Your task to perform on an android device: toggle javascript in the chrome app Image 0: 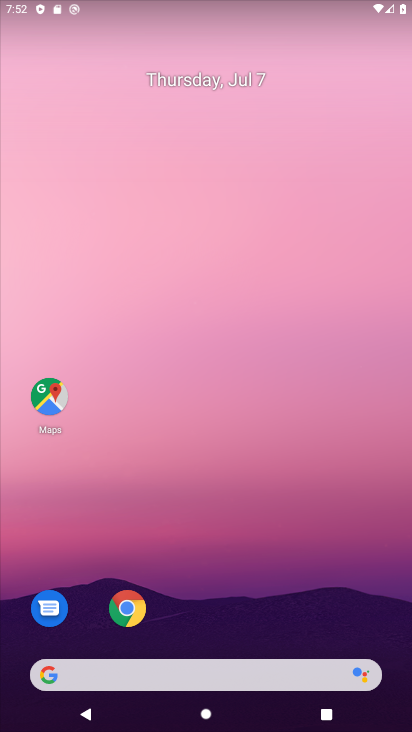
Step 0: click (140, 613)
Your task to perform on an android device: toggle javascript in the chrome app Image 1: 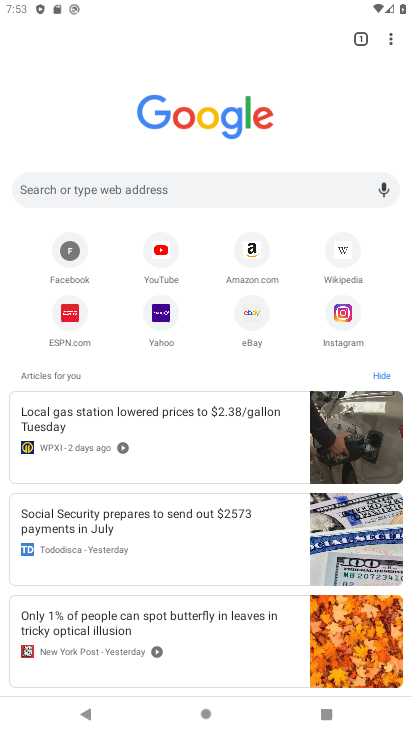
Step 1: click (387, 43)
Your task to perform on an android device: toggle javascript in the chrome app Image 2: 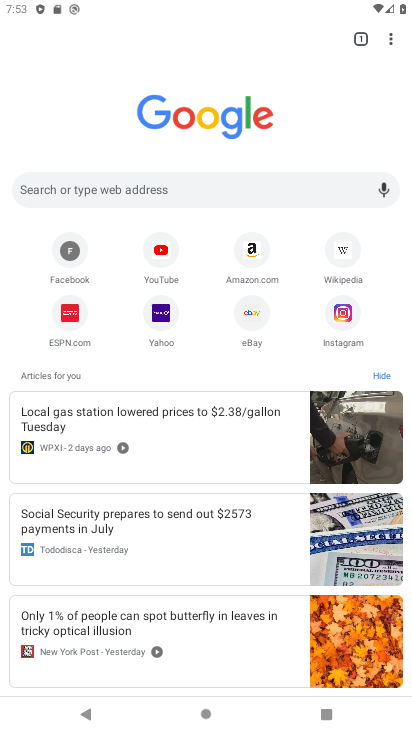
Step 2: drag from (387, 43) to (244, 329)
Your task to perform on an android device: toggle javascript in the chrome app Image 3: 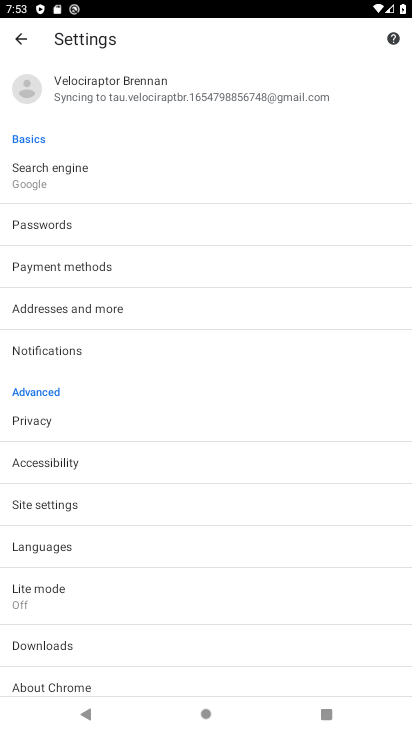
Step 3: click (72, 497)
Your task to perform on an android device: toggle javascript in the chrome app Image 4: 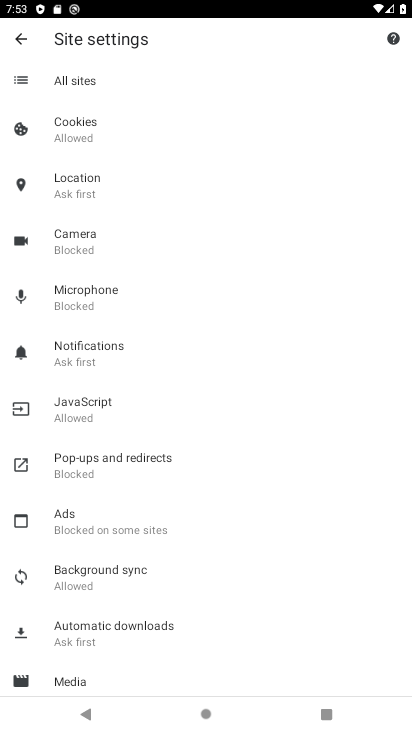
Step 4: click (97, 404)
Your task to perform on an android device: toggle javascript in the chrome app Image 5: 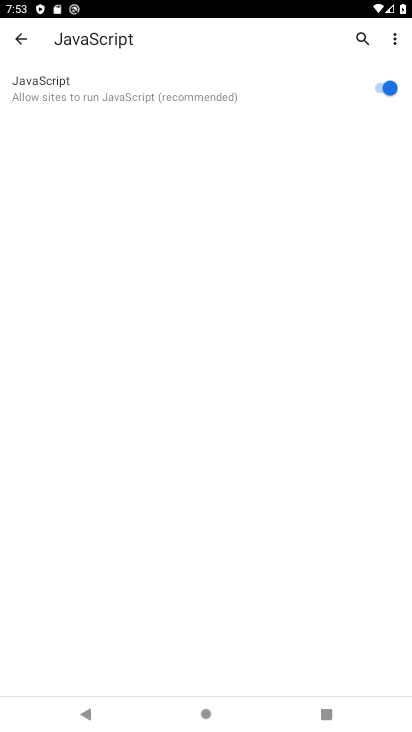
Step 5: click (385, 84)
Your task to perform on an android device: toggle javascript in the chrome app Image 6: 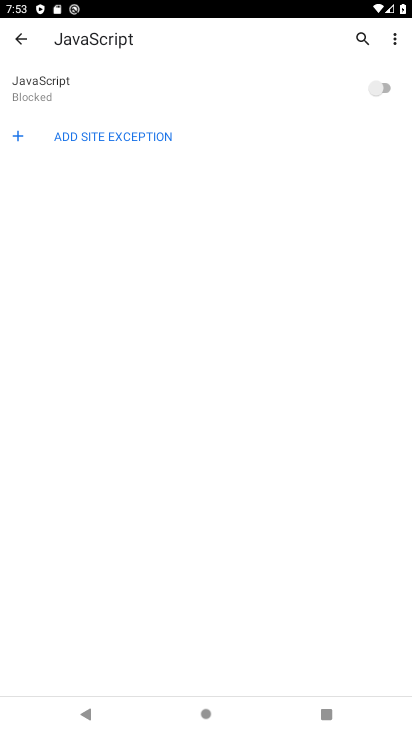
Step 6: task complete